Your task to perform on an android device: Open Chrome and go to settings Image 0: 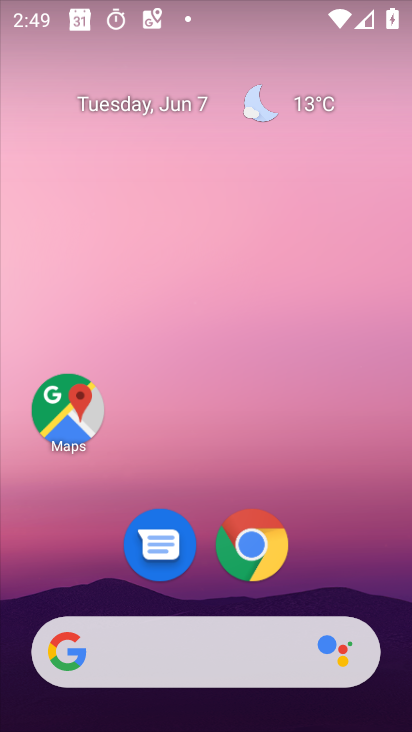
Step 0: click (261, 551)
Your task to perform on an android device: Open Chrome and go to settings Image 1: 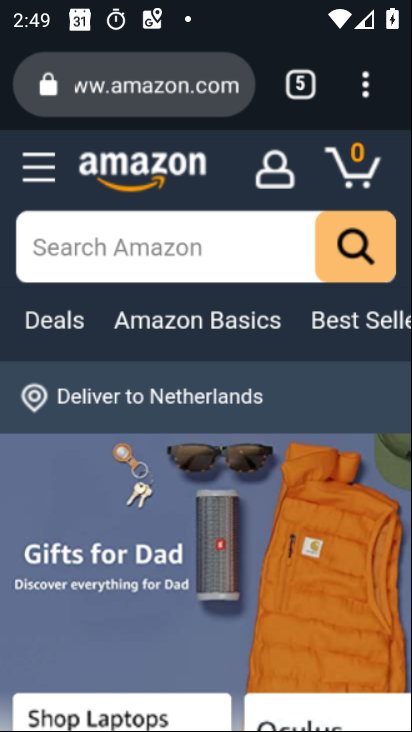
Step 1: click (365, 90)
Your task to perform on an android device: Open Chrome and go to settings Image 2: 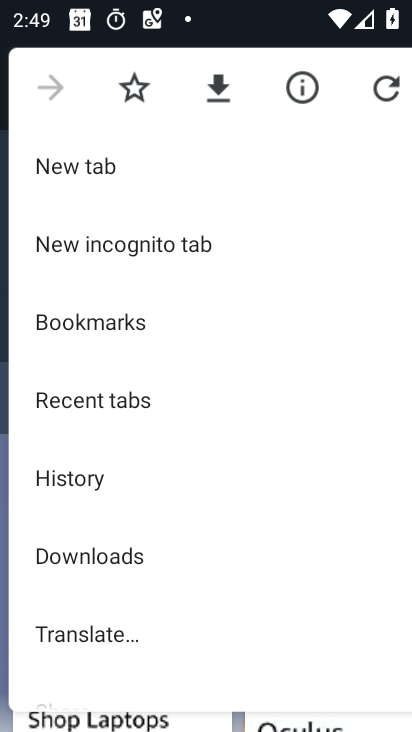
Step 2: drag from (239, 640) to (291, 132)
Your task to perform on an android device: Open Chrome and go to settings Image 3: 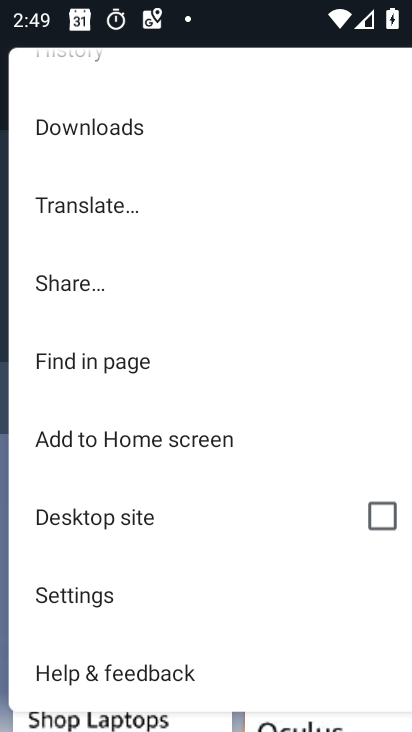
Step 3: click (163, 588)
Your task to perform on an android device: Open Chrome and go to settings Image 4: 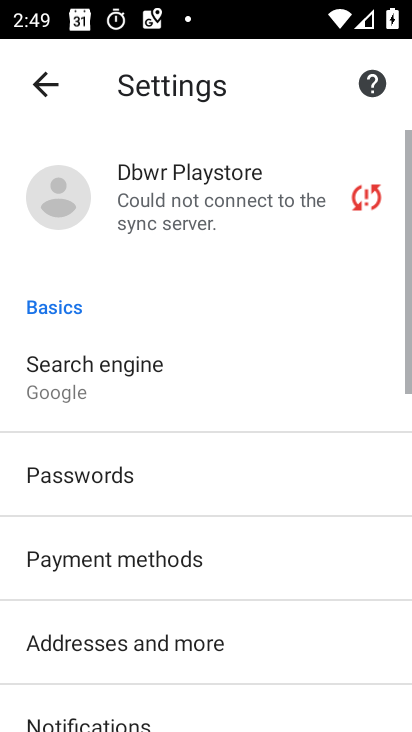
Step 4: task complete